Your task to perform on an android device: Open my contact list Image 0: 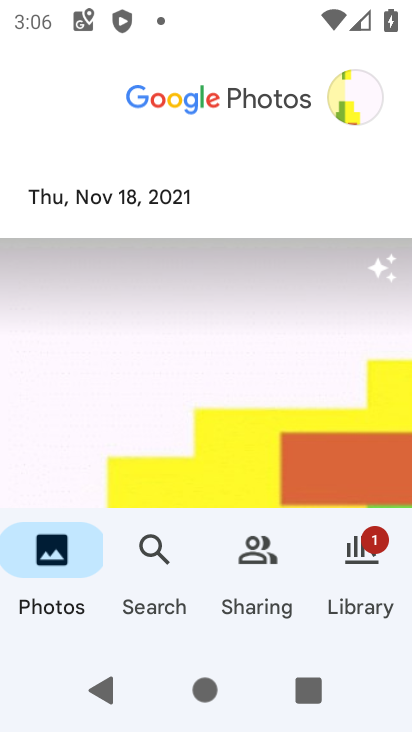
Step 0: press home button
Your task to perform on an android device: Open my contact list Image 1: 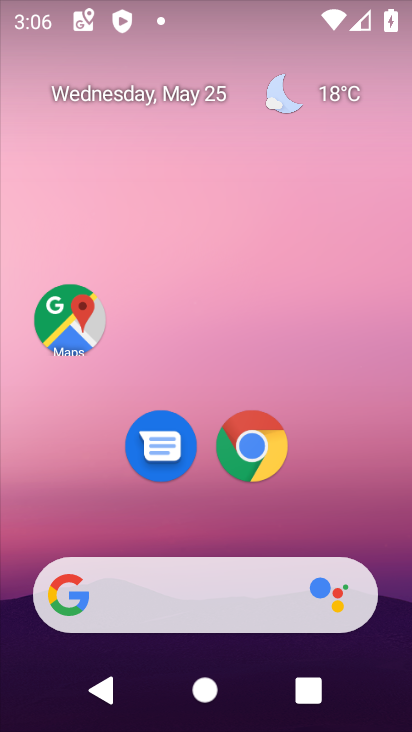
Step 1: drag from (224, 592) to (284, 75)
Your task to perform on an android device: Open my contact list Image 2: 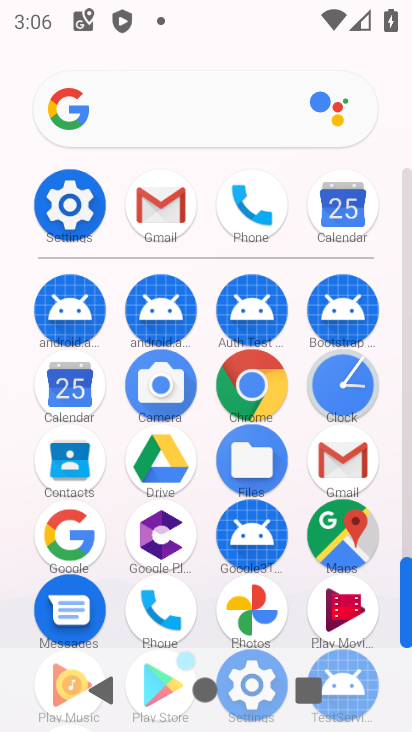
Step 2: click (64, 471)
Your task to perform on an android device: Open my contact list Image 3: 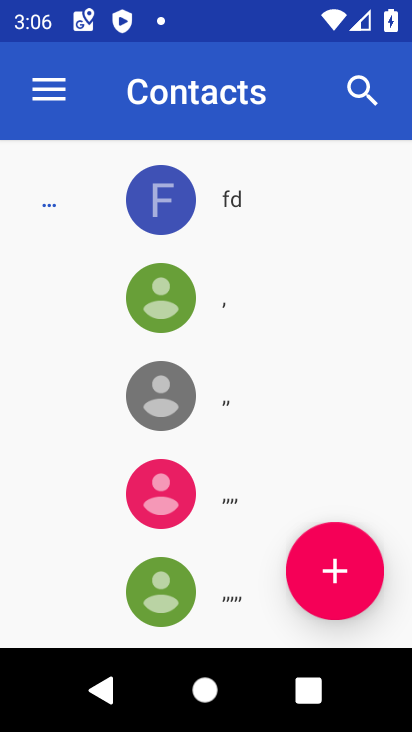
Step 3: task complete